Your task to perform on an android device: turn off javascript in the chrome app Image 0: 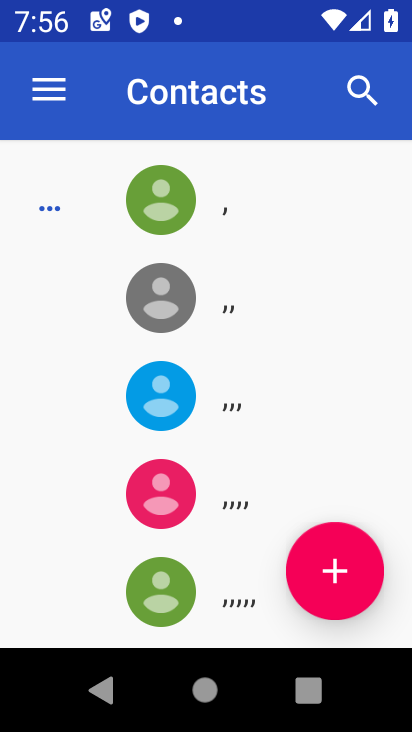
Step 0: press home button
Your task to perform on an android device: turn off javascript in the chrome app Image 1: 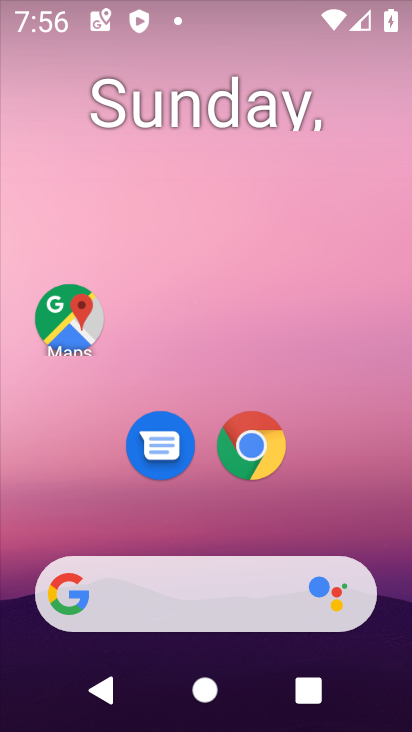
Step 1: drag from (47, 536) to (241, 230)
Your task to perform on an android device: turn off javascript in the chrome app Image 2: 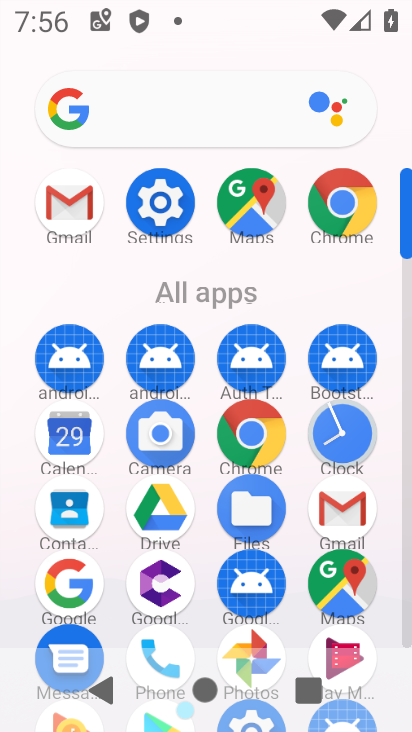
Step 2: click (321, 204)
Your task to perform on an android device: turn off javascript in the chrome app Image 3: 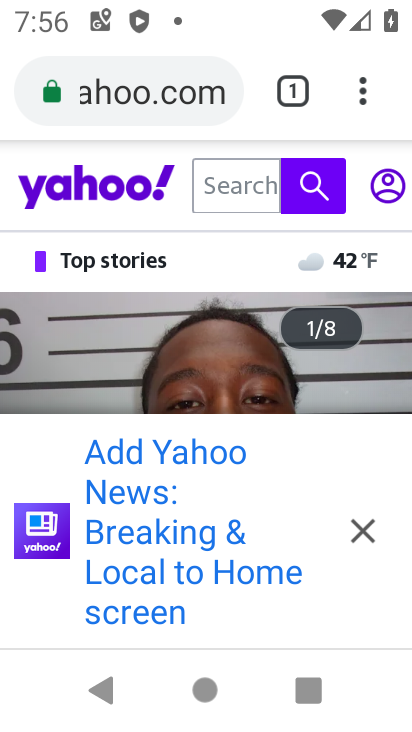
Step 3: click (365, 90)
Your task to perform on an android device: turn off javascript in the chrome app Image 4: 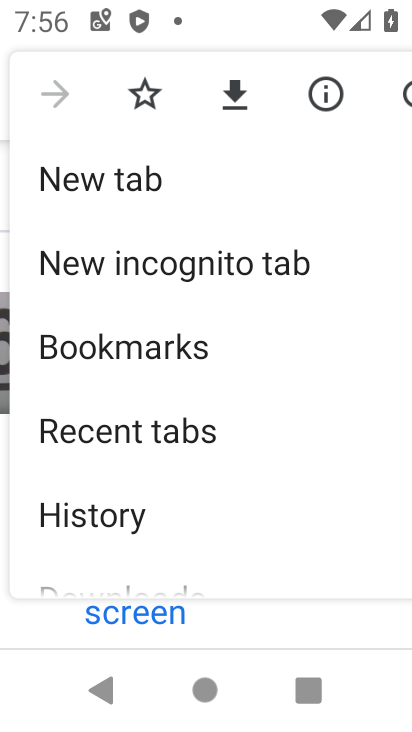
Step 4: drag from (49, 562) to (260, 110)
Your task to perform on an android device: turn off javascript in the chrome app Image 5: 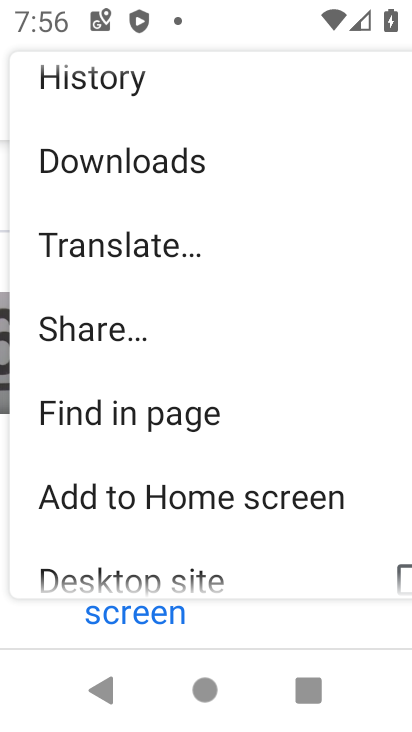
Step 5: drag from (10, 353) to (260, 132)
Your task to perform on an android device: turn off javascript in the chrome app Image 6: 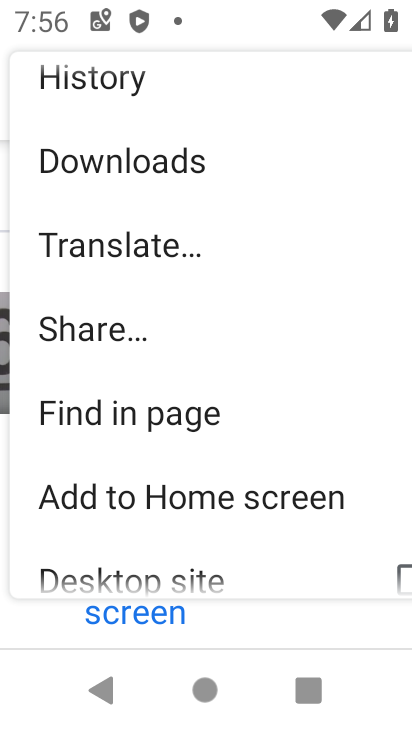
Step 6: drag from (19, 352) to (297, 184)
Your task to perform on an android device: turn off javascript in the chrome app Image 7: 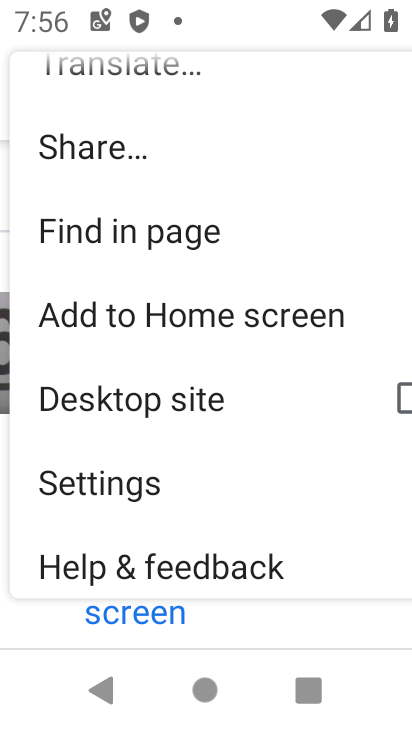
Step 7: click (108, 476)
Your task to perform on an android device: turn off javascript in the chrome app Image 8: 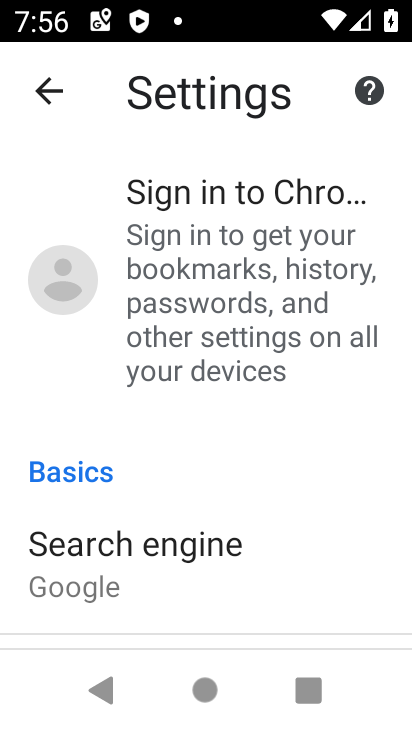
Step 8: drag from (9, 571) to (314, 148)
Your task to perform on an android device: turn off javascript in the chrome app Image 9: 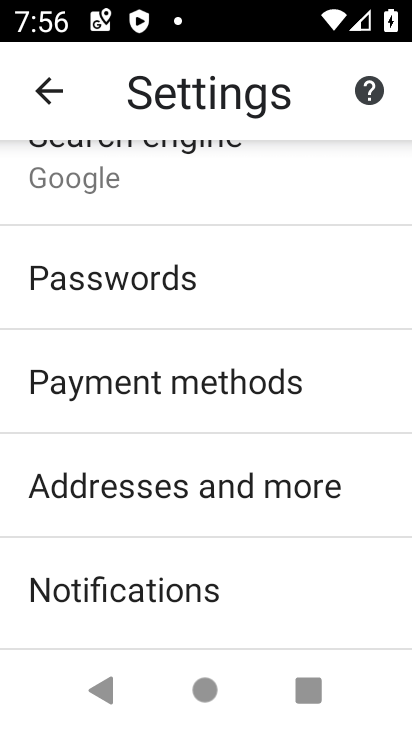
Step 9: drag from (26, 530) to (284, 216)
Your task to perform on an android device: turn off javascript in the chrome app Image 10: 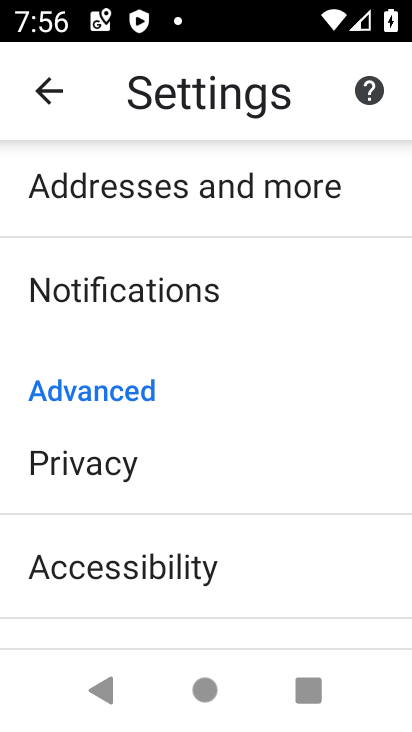
Step 10: drag from (5, 617) to (203, 234)
Your task to perform on an android device: turn off javascript in the chrome app Image 11: 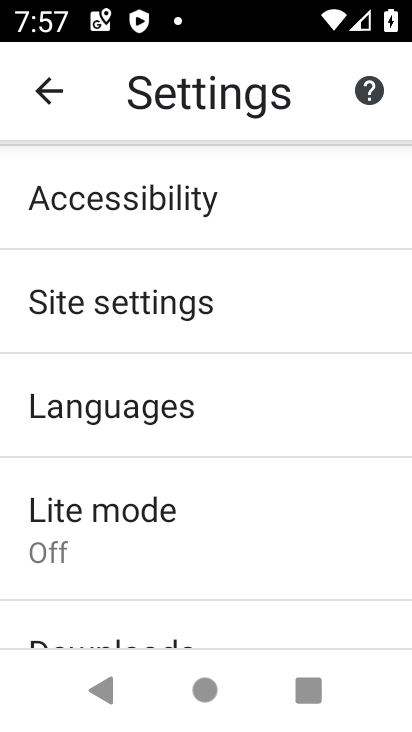
Step 11: click (137, 322)
Your task to perform on an android device: turn off javascript in the chrome app Image 12: 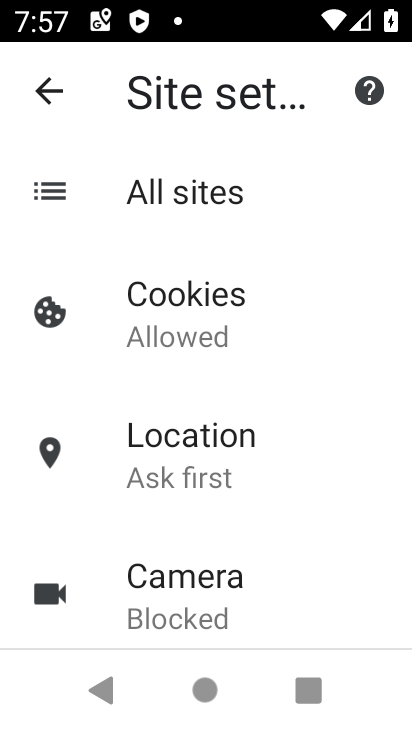
Step 12: drag from (6, 555) to (219, 235)
Your task to perform on an android device: turn off javascript in the chrome app Image 13: 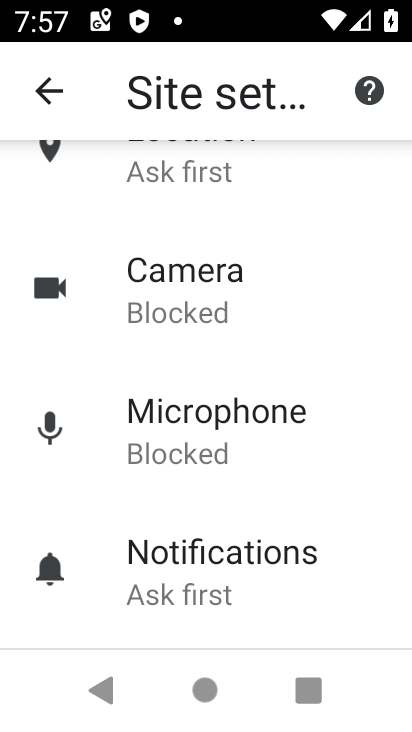
Step 13: drag from (20, 530) to (188, 175)
Your task to perform on an android device: turn off javascript in the chrome app Image 14: 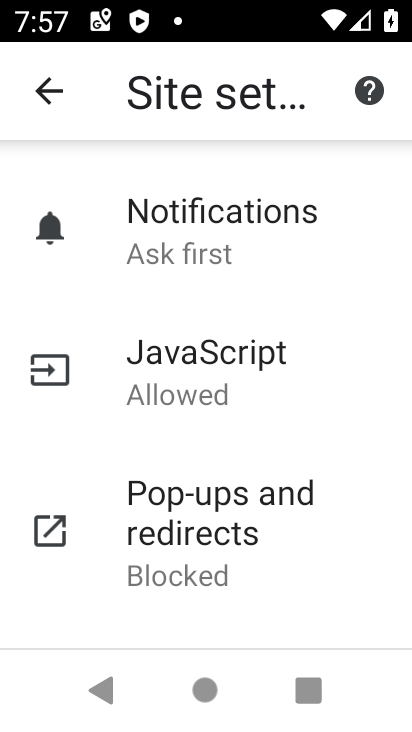
Step 14: click (174, 353)
Your task to perform on an android device: turn off javascript in the chrome app Image 15: 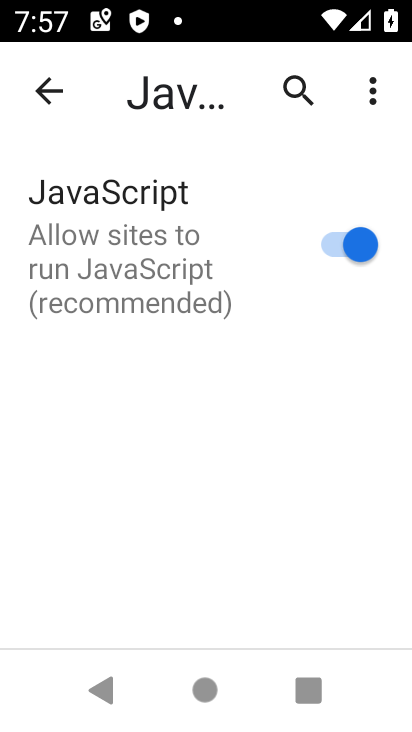
Step 15: click (355, 246)
Your task to perform on an android device: turn off javascript in the chrome app Image 16: 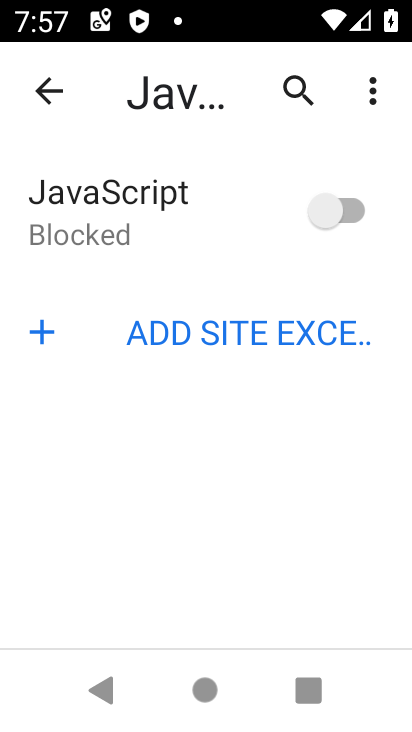
Step 16: task complete